Your task to perform on an android device: turn off priority inbox in the gmail app Image 0: 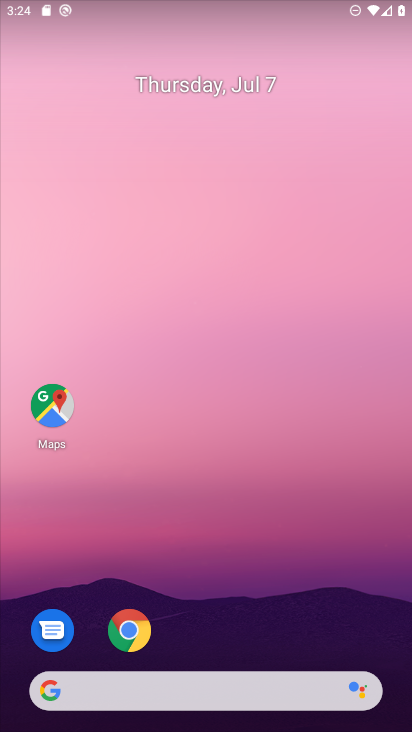
Step 0: drag from (378, 630) to (395, 156)
Your task to perform on an android device: turn off priority inbox in the gmail app Image 1: 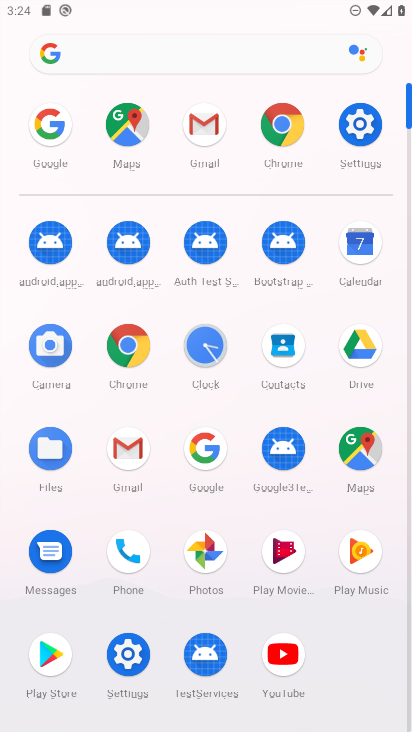
Step 1: click (130, 452)
Your task to perform on an android device: turn off priority inbox in the gmail app Image 2: 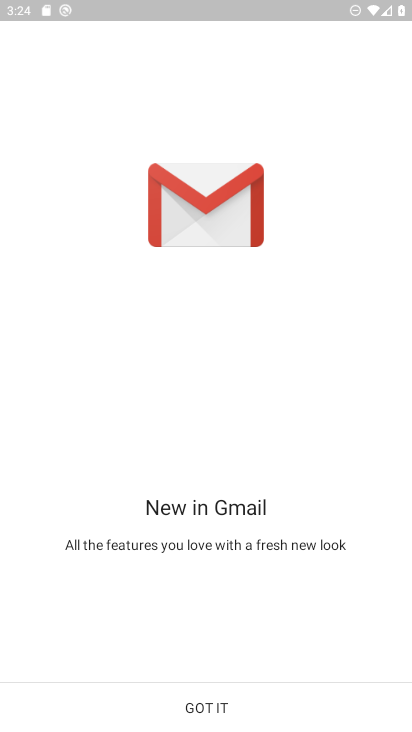
Step 2: click (211, 706)
Your task to perform on an android device: turn off priority inbox in the gmail app Image 3: 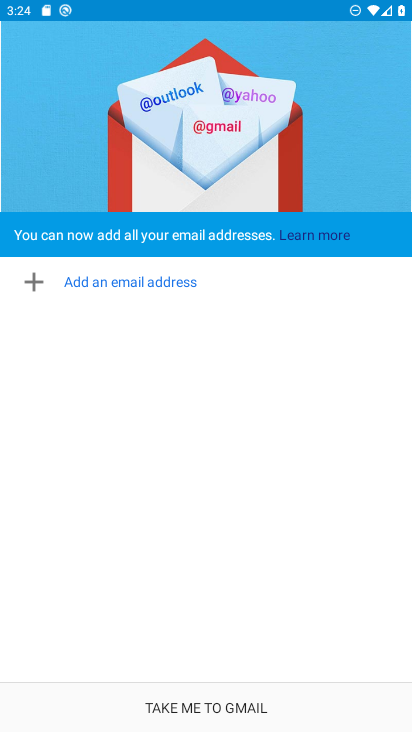
Step 3: click (211, 706)
Your task to perform on an android device: turn off priority inbox in the gmail app Image 4: 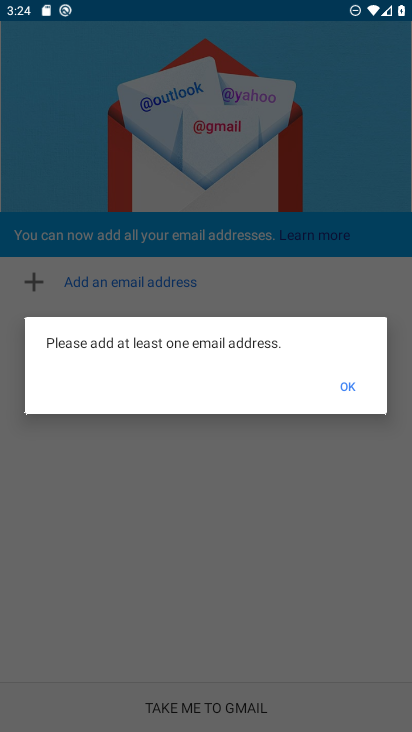
Step 4: task complete